Your task to perform on an android device: Open display settings Image 0: 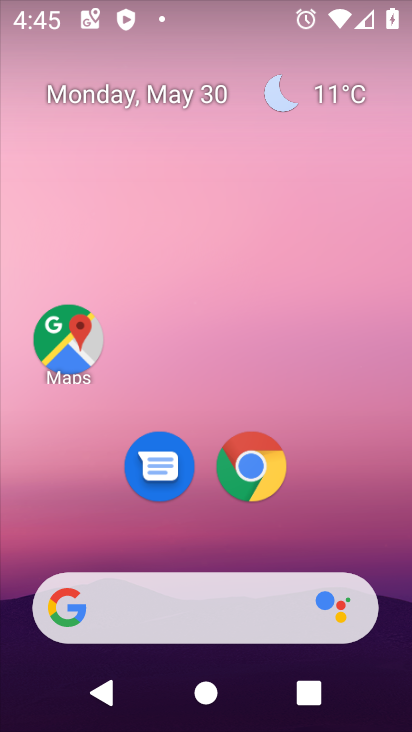
Step 0: drag from (339, 510) to (285, 133)
Your task to perform on an android device: Open display settings Image 1: 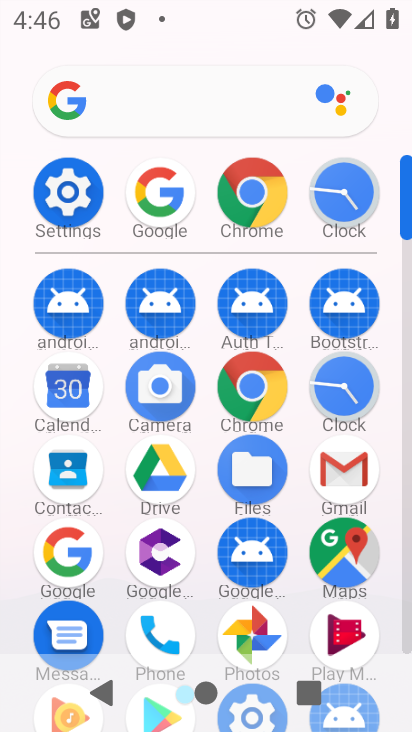
Step 1: click (84, 208)
Your task to perform on an android device: Open display settings Image 2: 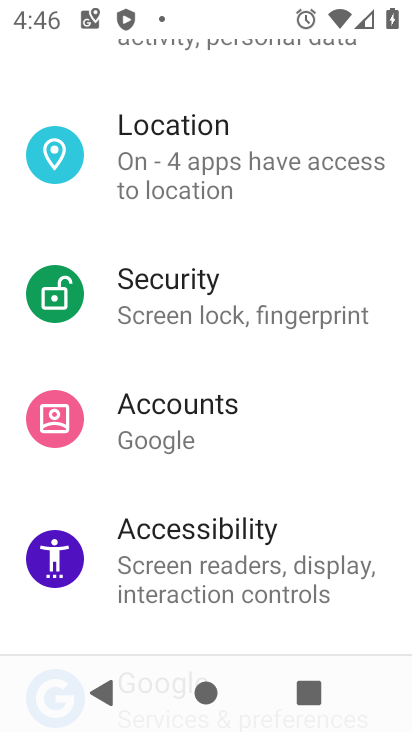
Step 2: drag from (246, 218) to (349, 657)
Your task to perform on an android device: Open display settings Image 3: 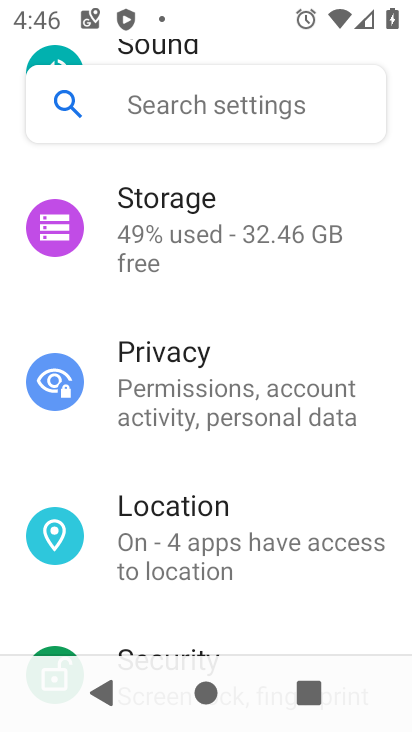
Step 3: drag from (284, 406) to (351, 674)
Your task to perform on an android device: Open display settings Image 4: 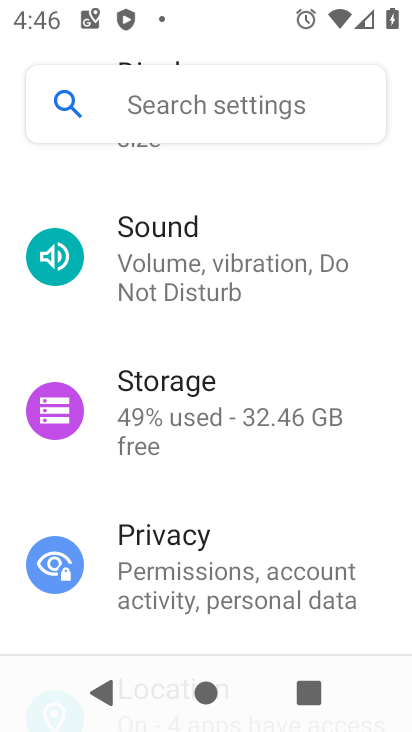
Step 4: drag from (216, 304) to (280, 598)
Your task to perform on an android device: Open display settings Image 5: 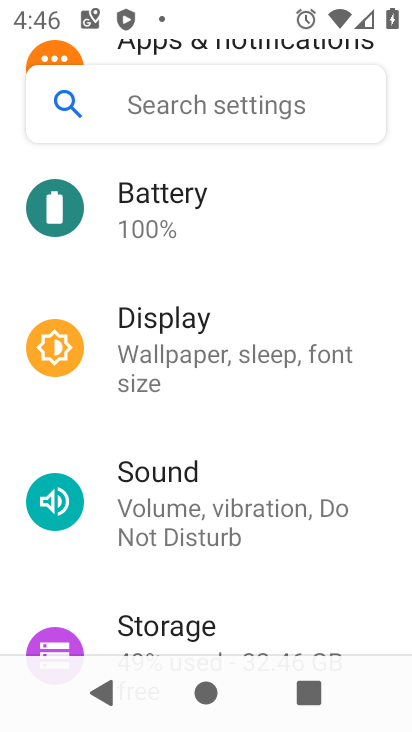
Step 5: click (168, 327)
Your task to perform on an android device: Open display settings Image 6: 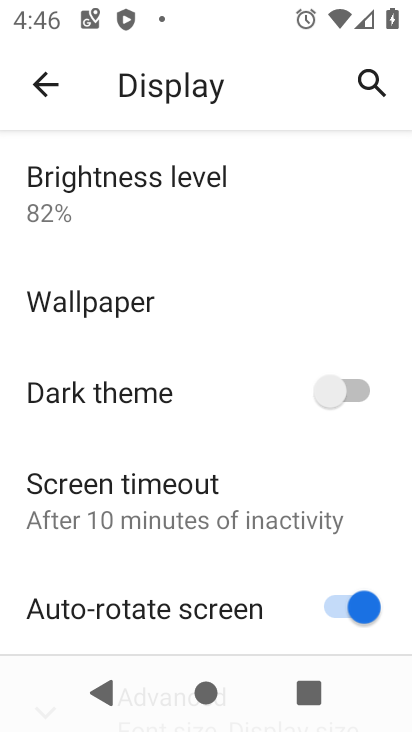
Step 6: task complete